Your task to perform on an android device: open app "PUBG MOBILE" (install if not already installed), go to login, and select forgot password Image 0: 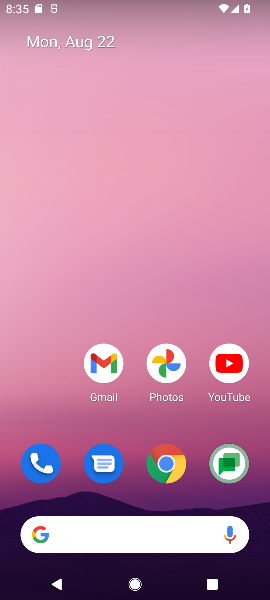
Step 0: drag from (130, 424) to (141, 2)
Your task to perform on an android device: open app "PUBG MOBILE" (install if not already installed), go to login, and select forgot password Image 1: 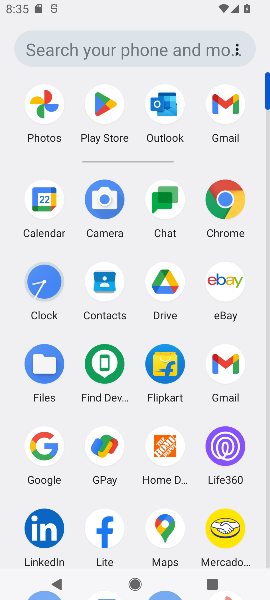
Step 1: click (104, 102)
Your task to perform on an android device: open app "PUBG MOBILE" (install if not already installed), go to login, and select forgot password Image 2: 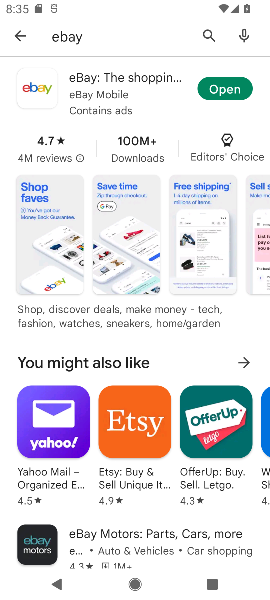
Step 2: click (21, 43)
Your task to perform on an android device: open app "PUBG MOBILE" (install if not already installed), go to login, and select forgot password Image 3: 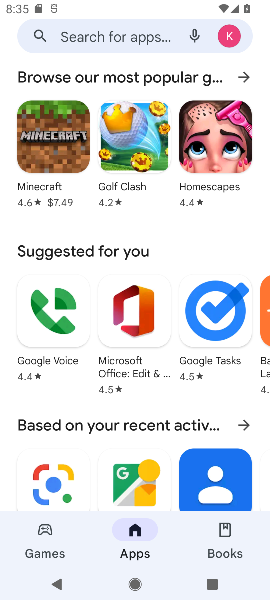
Step 3: click (81, 33)
Your task to perform on an android device: open app "PUBG MOBILE" (install if not already installed), go to login, and select forgot password Image 4: 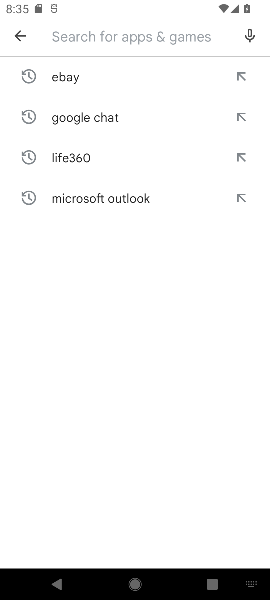
Step 4: type "PUBG MOBILE"
Your task to perform on an android device: open app "PUBG MOBILE" (install if not already installed), go to login, and select forgot password Image 5: 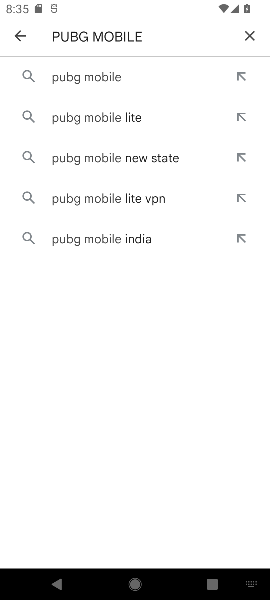
Step 5: click (103, 76)
Your task to perform on an android device: open app "PUBG MOBILE" (install if not already installed), go to login, and select forgot password Image 6: 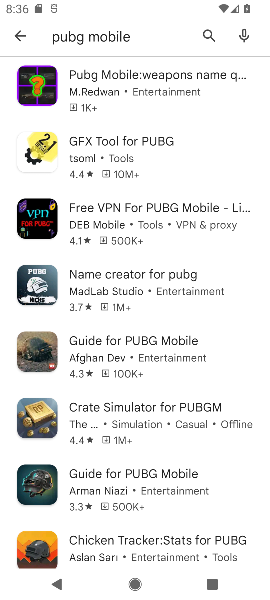
Step 6: click (119, 82)
Your task to perform on an android device: open app "PUBG MOBILE" (install if not already installed), go to login, and select forgot password Image 7: 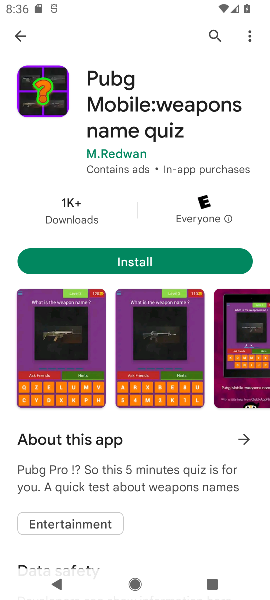
Step 7: click (137, 255)
Your task to perform on an android device: open app "PUBG MOBILE" (install if not already installed), go to login, and select forgot password Image 8: 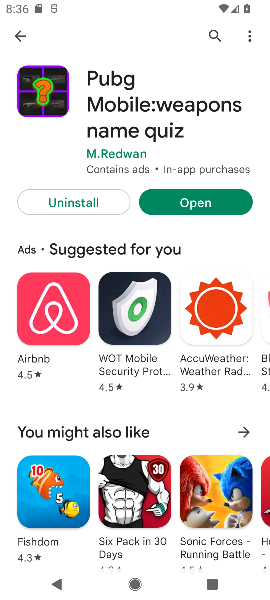
Step 8: click (204, 200)
Your task to perform on an android device: open app "PUBG MOBILE" (install if not already installed), go to login, and select forgot password Image 9: 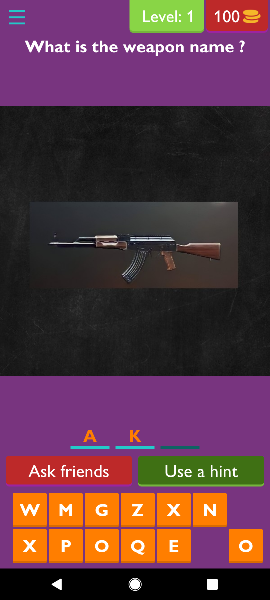
Step 9: task complete